Your task to perform on an android device: Open the Play Movies app and select the watchlist tab. Image 0: 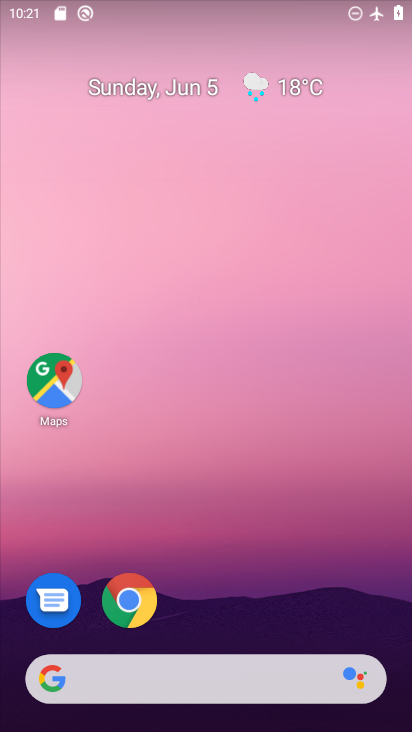
Step 0: drag from (249, 495) to (283, 115)
Your task to perform on an android device: Open the Play Movies app and select the watchlist tab. Image 1: 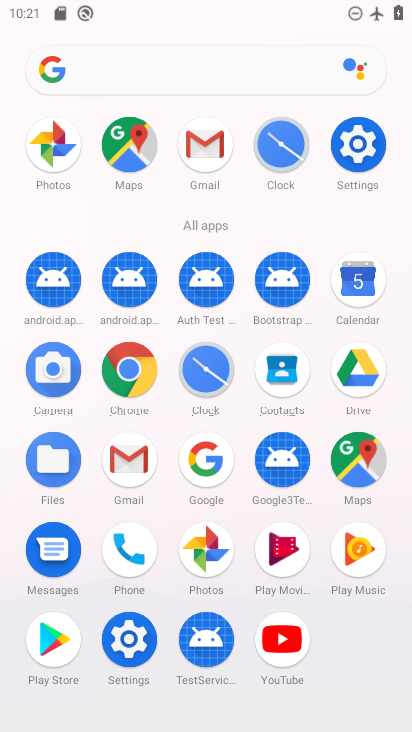
Step 1: click (278, 569)
Your task to perform on an android device: Open the Play Movies app and select the watchlist tab. Image 2: 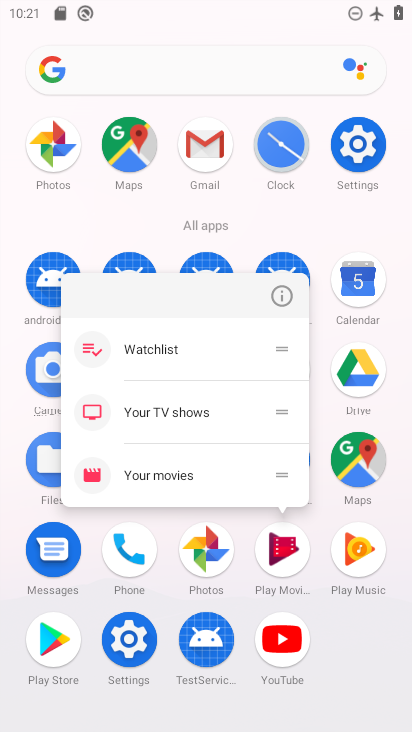
Step 2: click (278, 557)
Your task to perform on an android device: Open the Play Movies app and select the watchlist tab. Image 3: 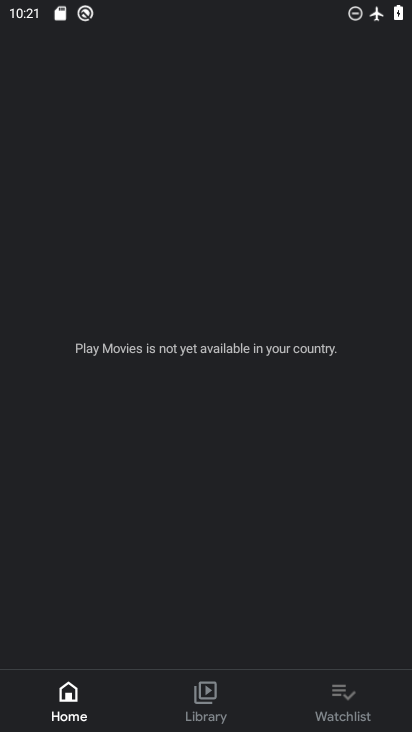
Step 3: click (344, 694)
Your task to perform on an android device: Open the Play Movies app and select the watchlist tab. Image 4: 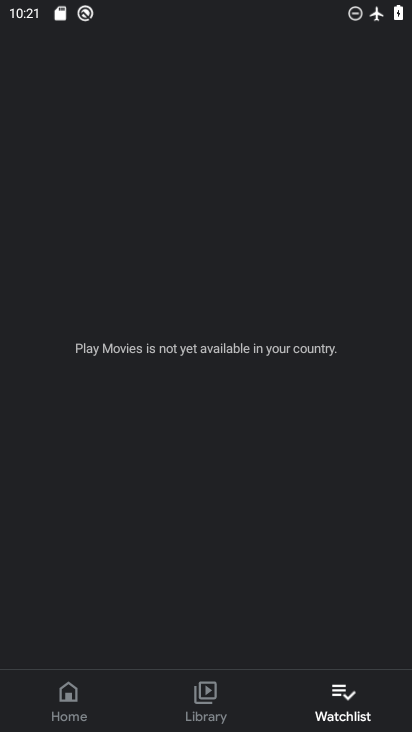
Step 4: task complete